Your task to perform on an android device: Go to Wikipedia Image 0: 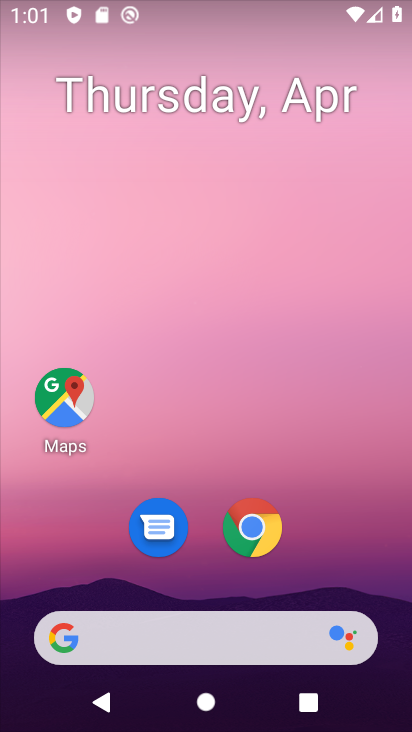
Step 0: click (249, 521)
Your task to perform on an android device: Go to Wikipedia Image 1: 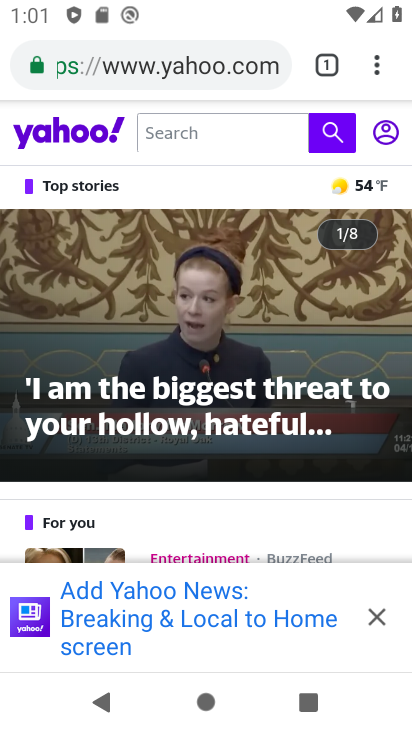
Step 1: click (168, 67)
Your task to perform on an android device: Go to Wikipedia Image 2: 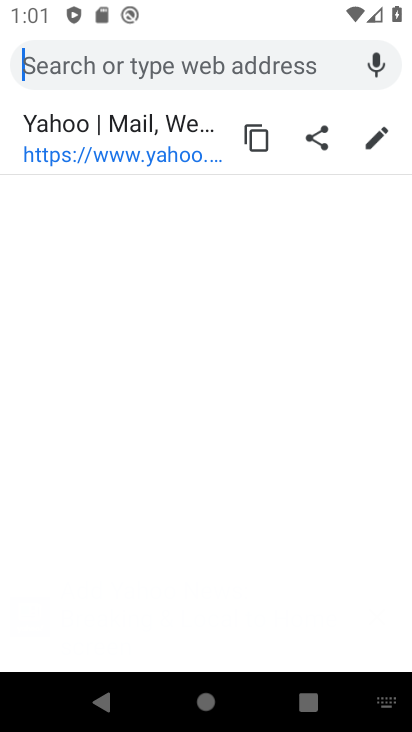
Step 2: type "wikipedia"
Your task to perform on an android device: Go to Wikipedia Image 3: 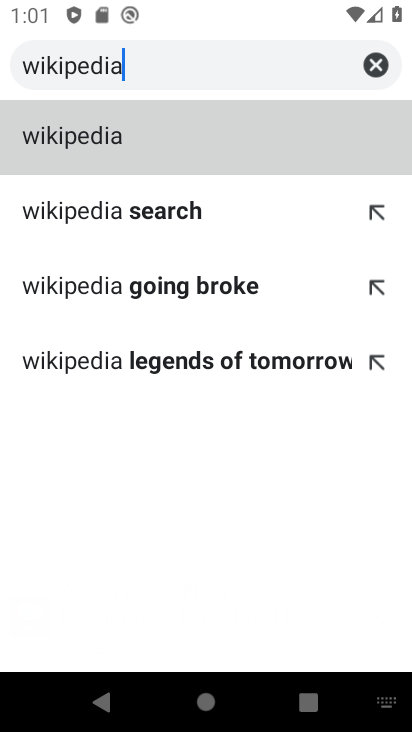
Step 3: click (77, 138)
Your task to perform on an android device: Go to Wikipedia Image 4: 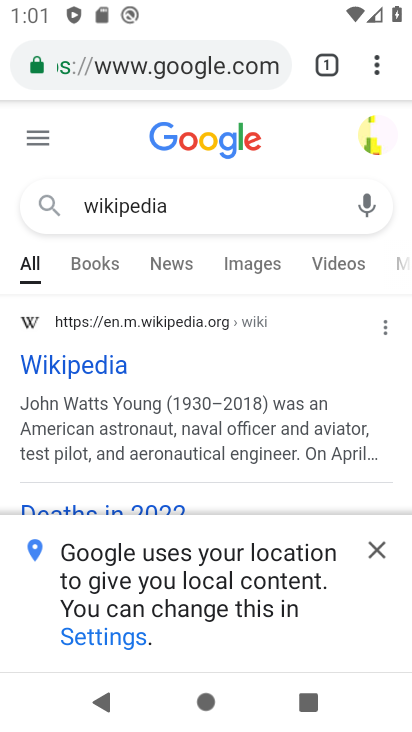
Step 4: click (64, 377)
Your task to perform on an android device: Go to Wikipedia Image 5: 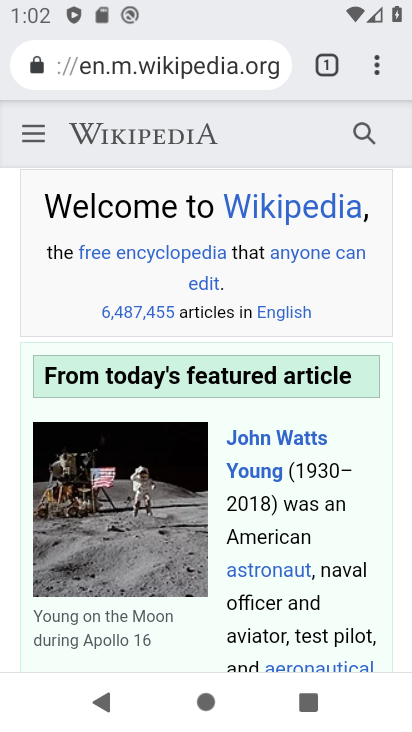
Step 5: task complete